Your task to perform on an android device: open a new tab in the chrome app Image 0: 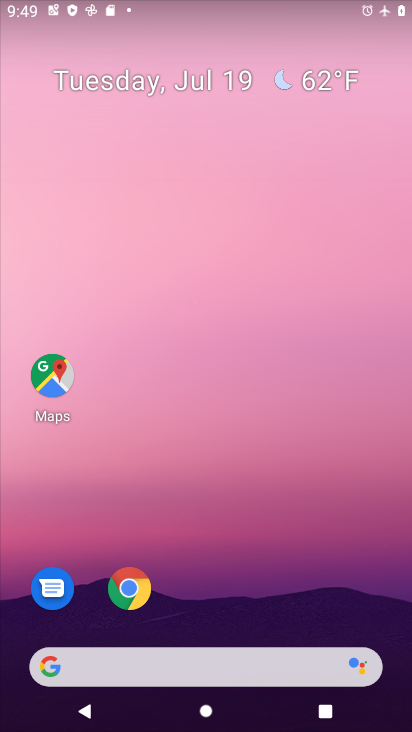
Step 0: drag from (296, 528) to (312, 15)
Your task to perform on an android device: open a new tab in the chrome app Image 1: 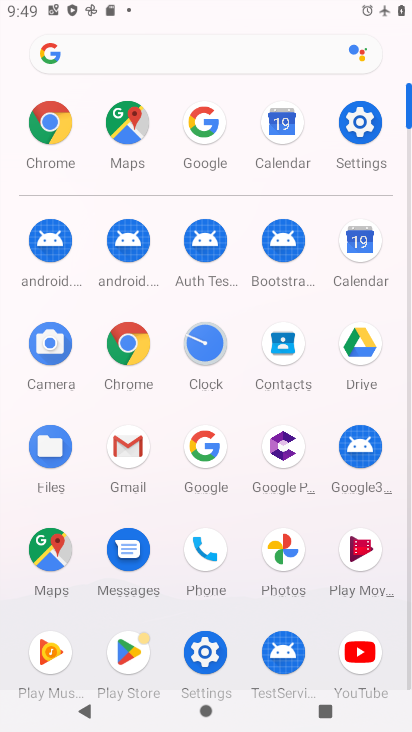
Step 1: click (362, 139)
Your task to perform on an android device: open a new tab in the chrome app Image 2: 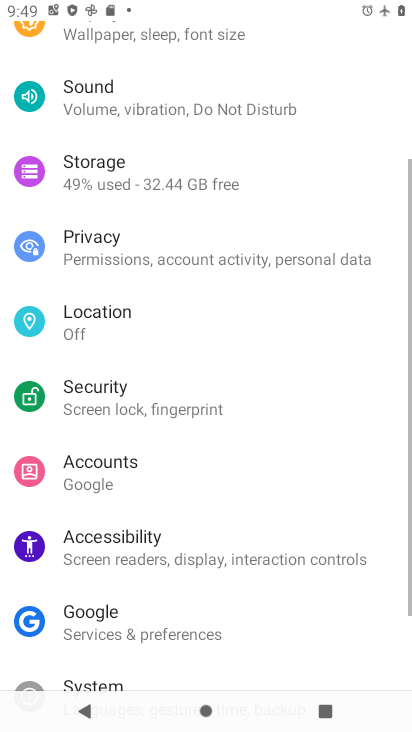
Step 2: drag from (165, 88) to (207, 547)
Your task to perform on an android device: open a new tab in the chrome app Image 3: 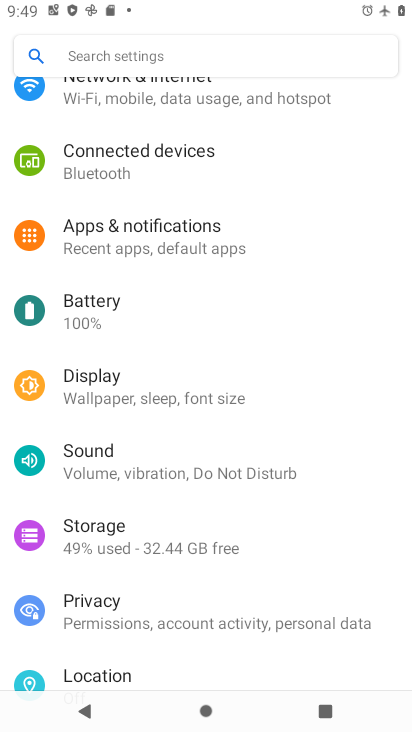
Step 3: drag from (194, 180) to (202, 599)
Your task to perform on an android device: open a new tab in the chrome app Image 4: 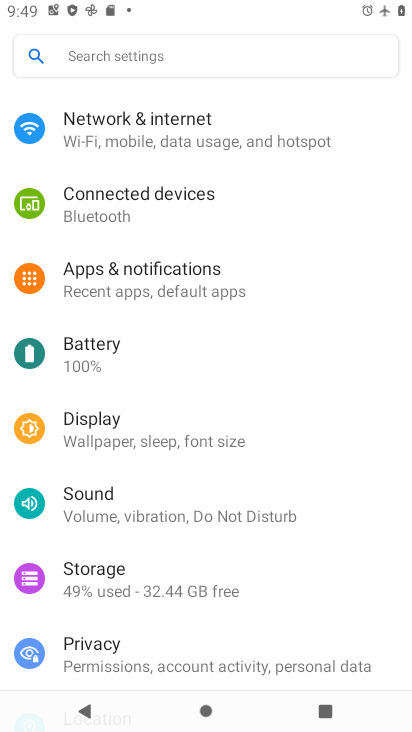
Step 4: click (132, 155)
Your task to perform on an android device: open a new tab in the chrome app Image 5: 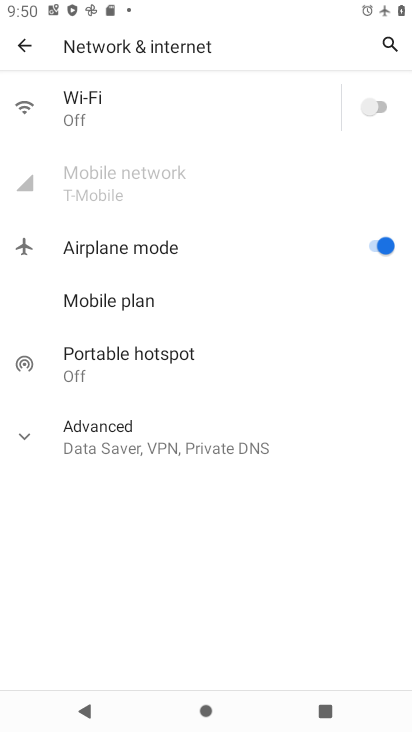
Step 5: press home button
Your task to perform on an android device: open a new tab in the chrome app Image 6: 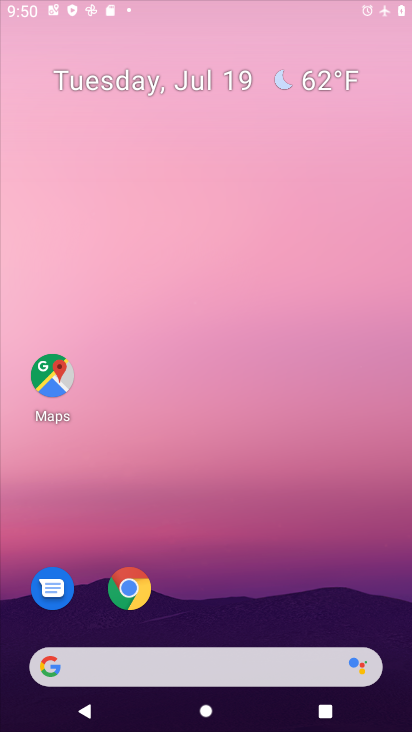
Step 6: drag from (324, 498) to (408, 59)
Your task to perform on an android device: open a new tab in the chrome app Image 7: 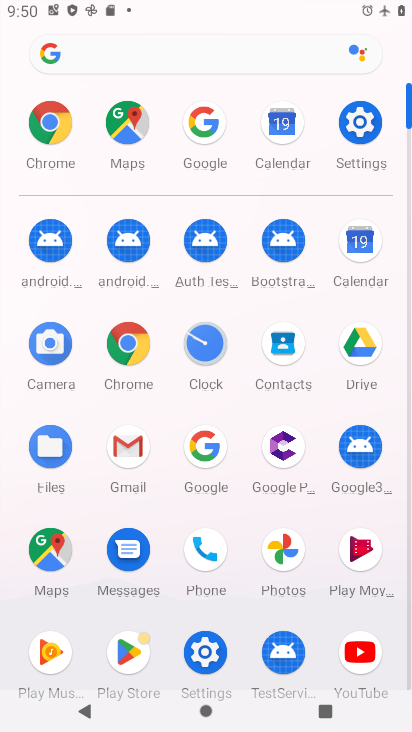
Step 7: click (59, 135)
Your task to perform on an android device: open a new tab in the chrome app Image 8: 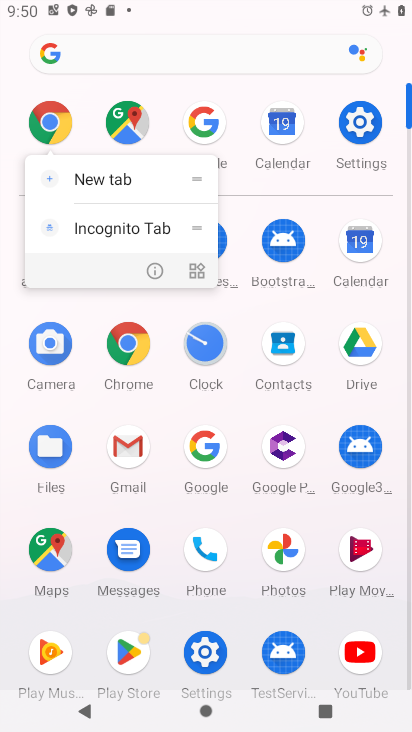
Step 8: click (57, 130)
Your task to perform on an android device: open a new tab in the chrome app Image 9: 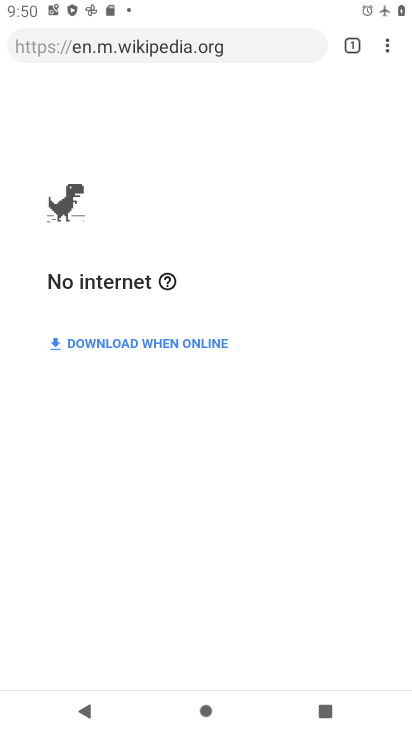
Step 9: task complete